Your task to perform on an android device: install app "eBay: The shopping marketplace" Image 0: 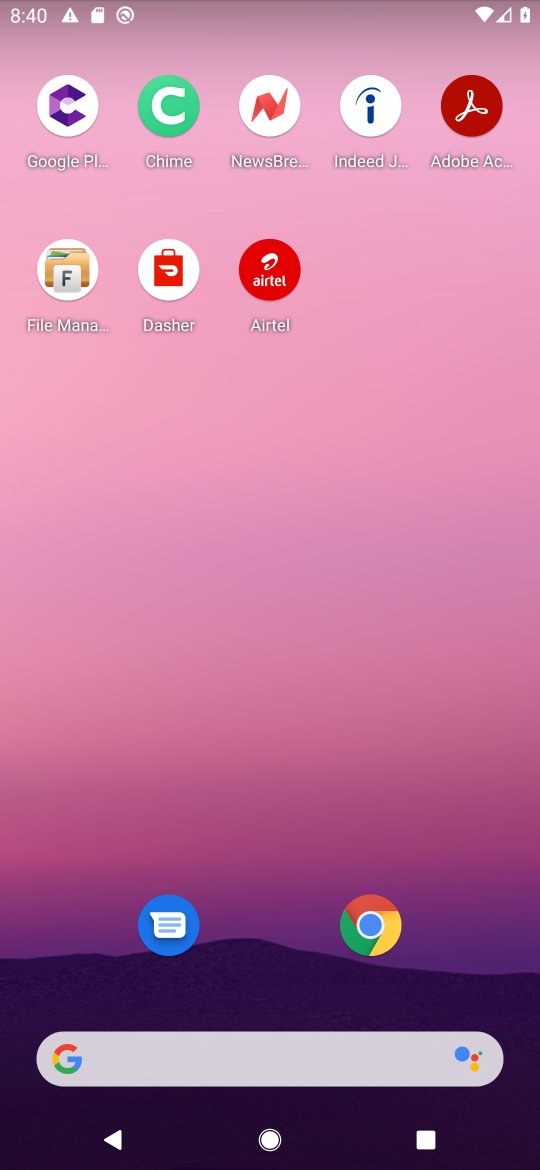
Step 0: drag from (316, 953) to (250, 200)
Your task to perform on an android device: install app "eBay: The shopping marketplace" Image 1: 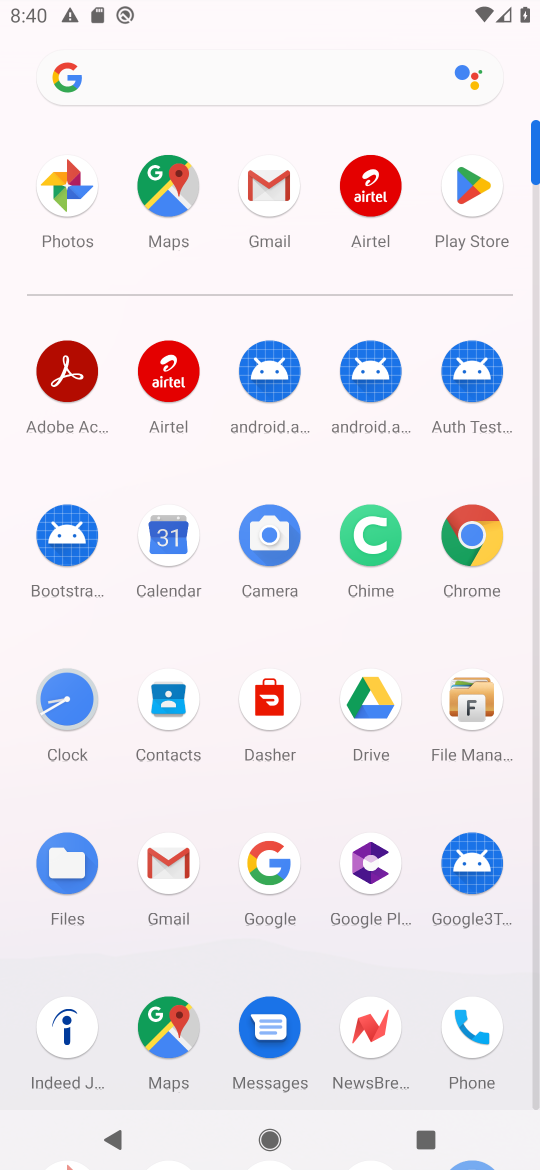
Step 1: click (478, 180)
Your task to perform on an android device: install app "eBay: The shopping marketplace" Image 2: 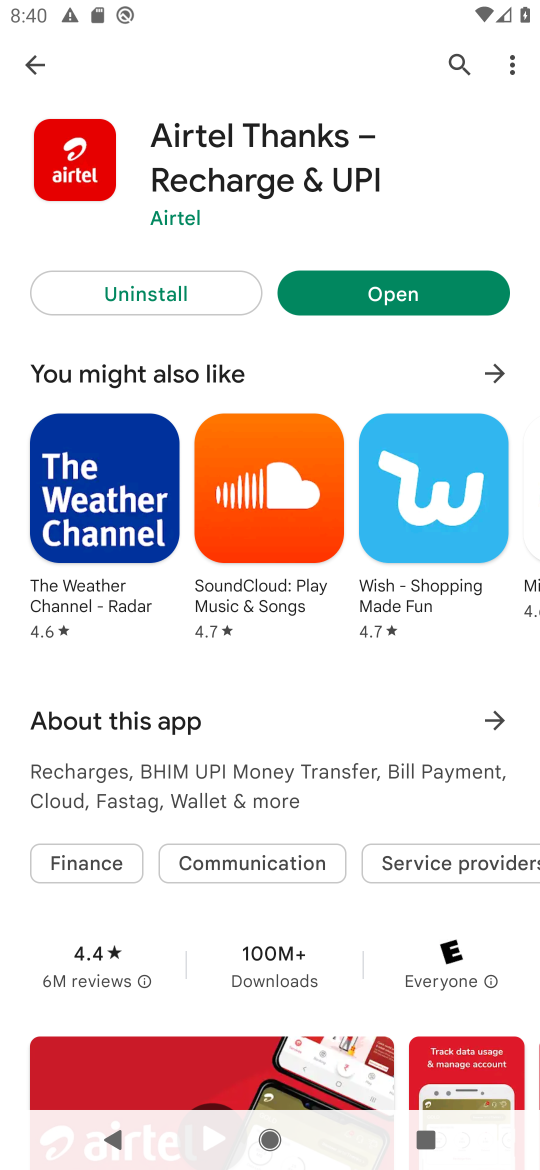
Step 2: click (462, 73)
Your task to perform on an android device: install app "eBay: The shopping marketplace" Image 3: 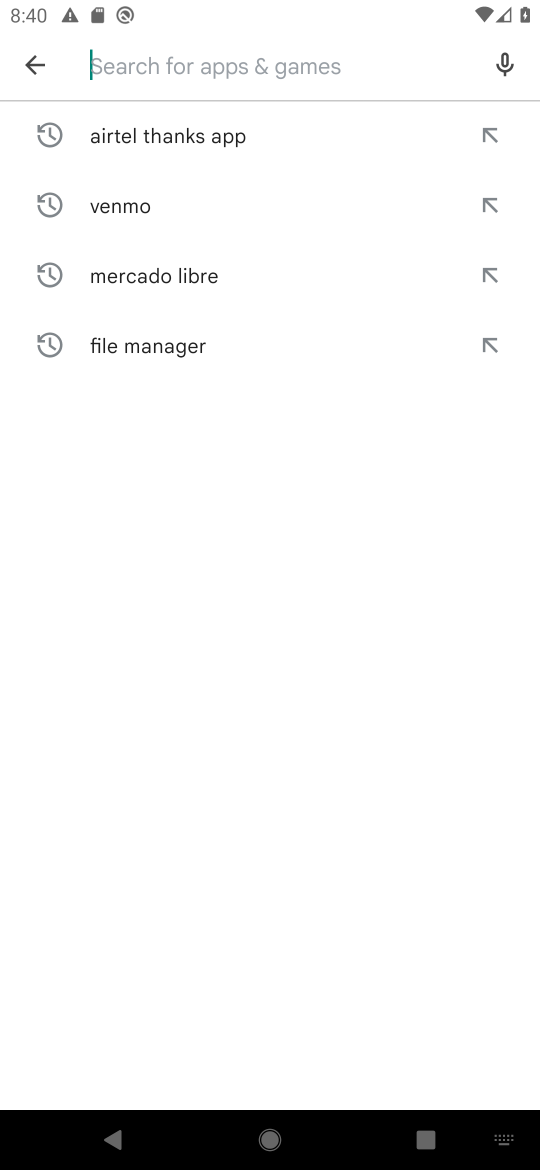
Step 3: type "ebay: the shopping marketplace"
Your task to perform on an android device: install app "eBay: The shopping marketplace" Image 4: 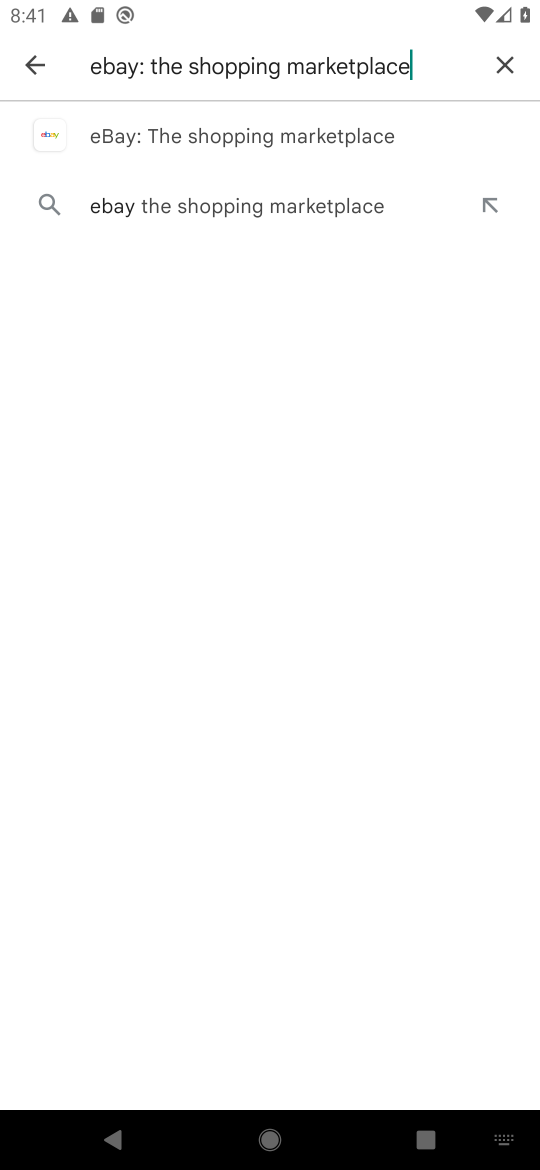
Step 4: click (359, 140)
Your task to perform on an android device: install app "eBay: The shopping marketplace" Image 5: 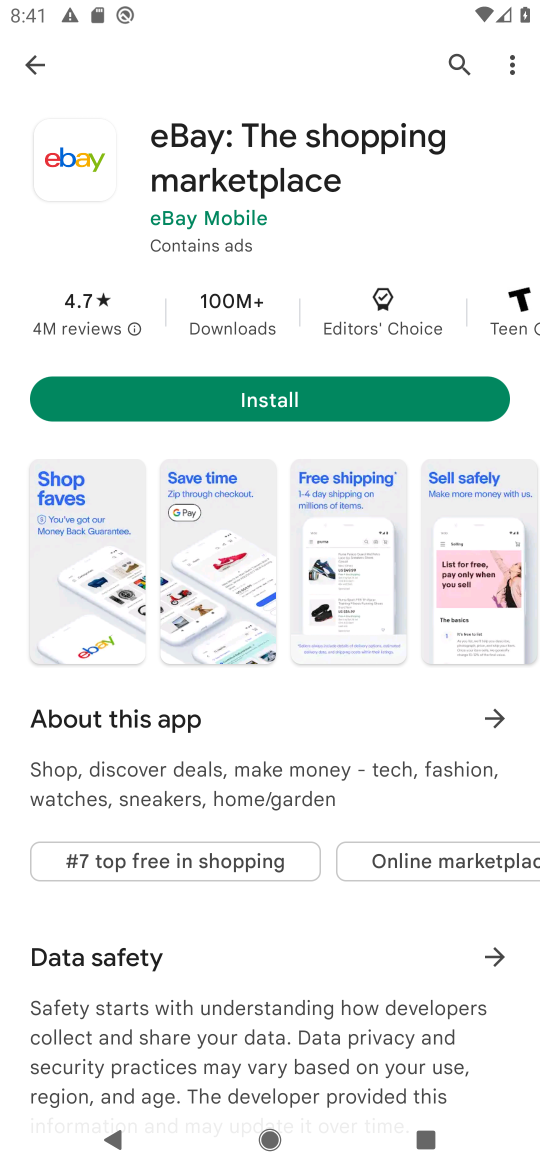
Step 5: click (270, 405)
Your task to perform on an android device: install app "eBay: The shopping marketplace" Image 6: 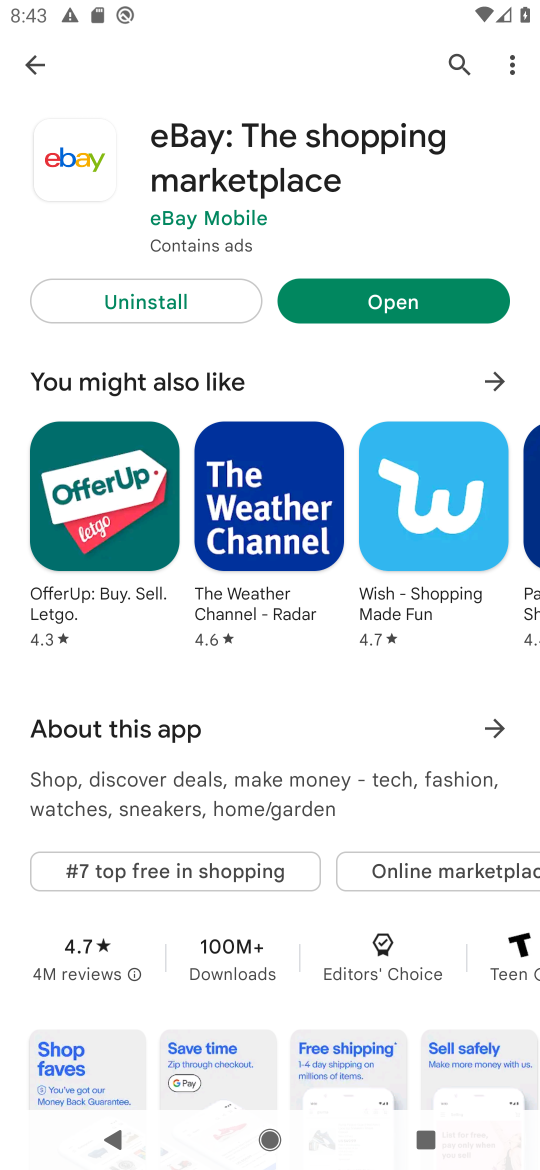
Step 6: task complete